Your task to perform on an android device: Search for seafood restaurants on Google Maps Image 0: 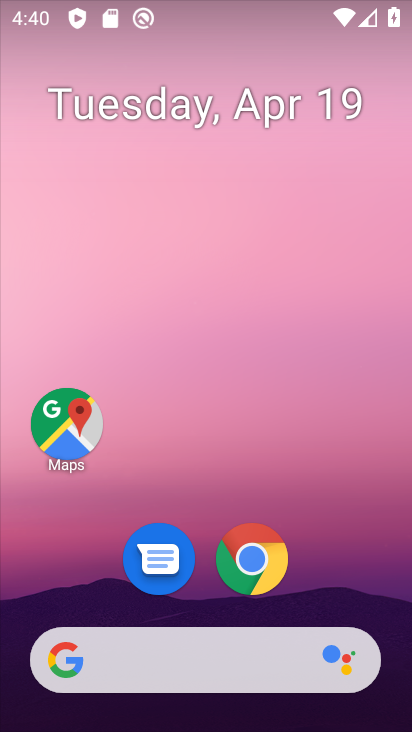
Step 0: click (43, 410)
Your task to perform on an android device: Search for seafood restaurants on Google Maps Image 1: 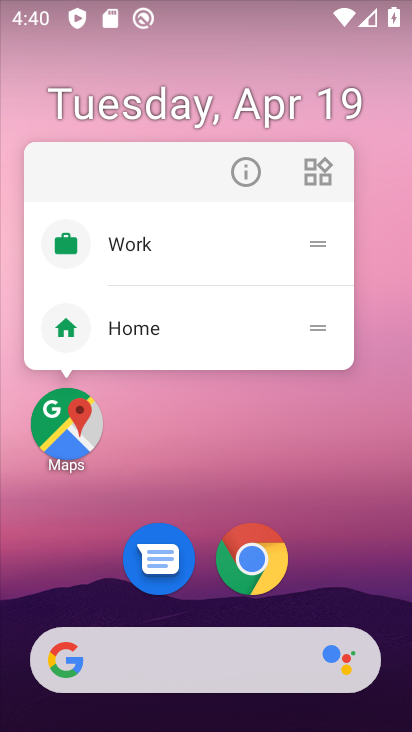
Step 1: click (43, 410)
Your task to perform on an android device: Search for seafood restaurants on Google Maps Image 2: 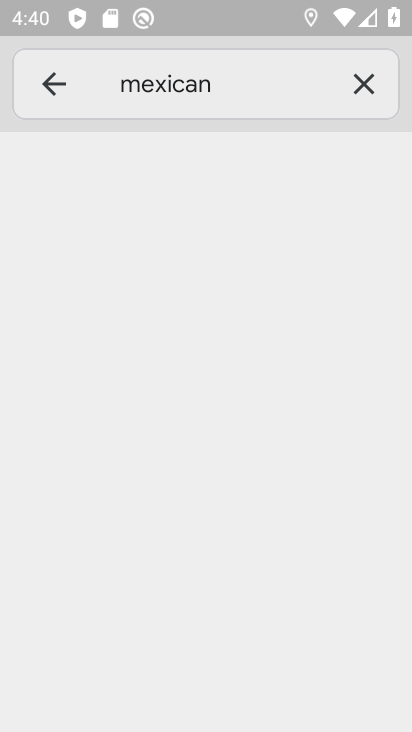
Step 2: click (340, 102)
Your task to perform on an android device: Search for seafood restaurants on Google Maps Image 3: 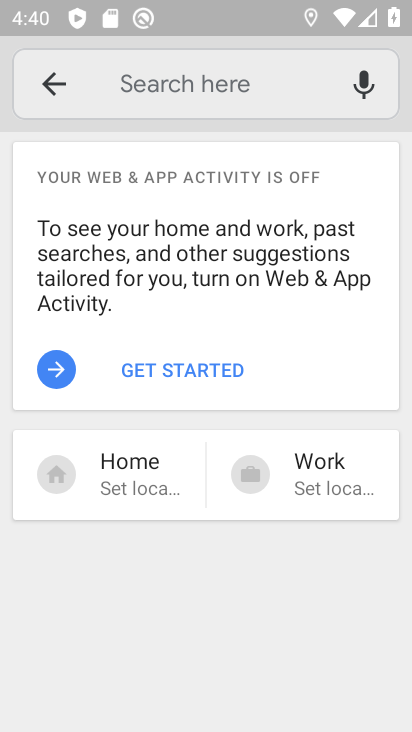
Step 3: click (216, 112)
Your task to perform on an android device: Search for seafood restaurants on Google Maps Image 4: 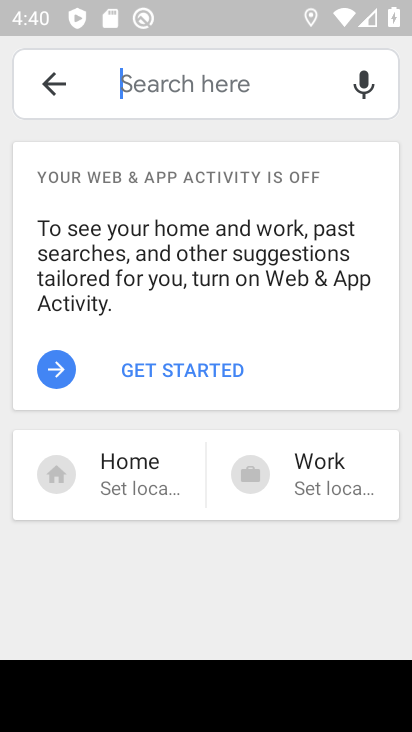
Step 4: type "seafood"
Your task to perform on an android device: Search for seafood restaurants on Google Maps Image 5: 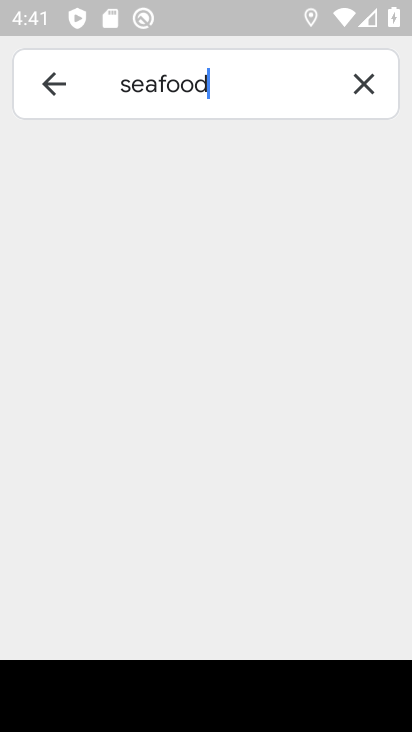
Step 5: task complete